Your task to perform on an android device: toggle sleep mode Image 0: 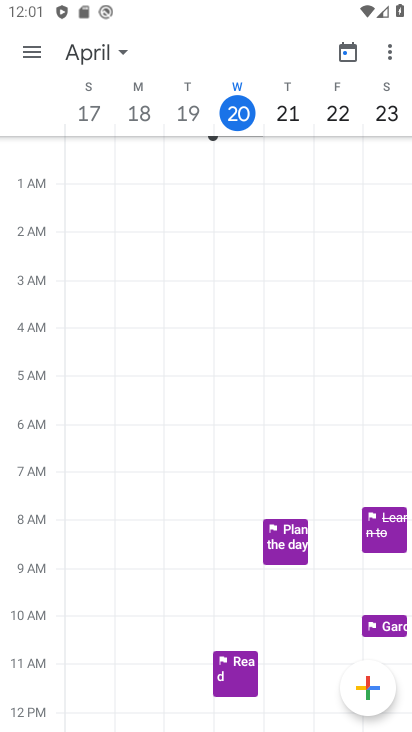
Step 0: press home button
Your task to perform on an android device: toggle sleep mode Image 1: 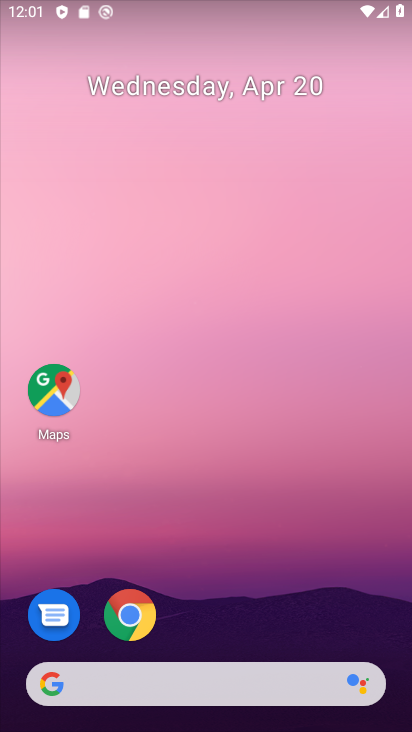
Step 1: click (338, 144)
Your task to perform on an android device: toggle sleep mode Image 2: 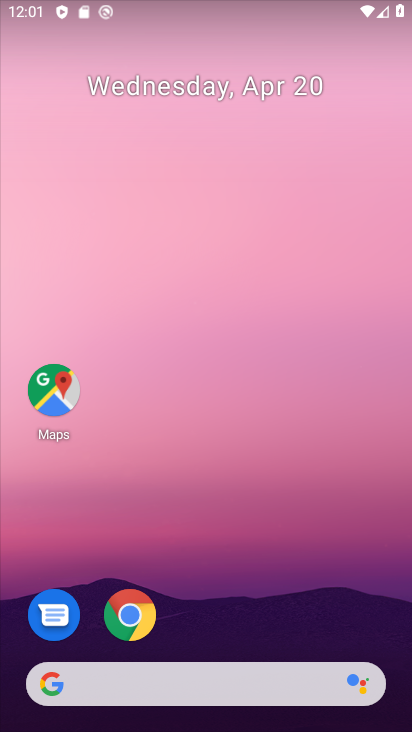
Step 2: drag from (362, 360) to (353, 263)
Your task to perform on an android device: toggle sleep mode Image 3: 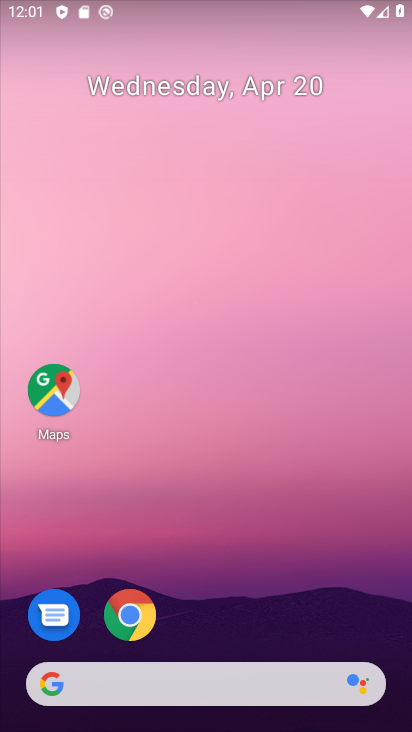
Step 3: drag from (378, 617) to (320, 217)
Your task to perform on an android device: toggle sleep mode Image 4: 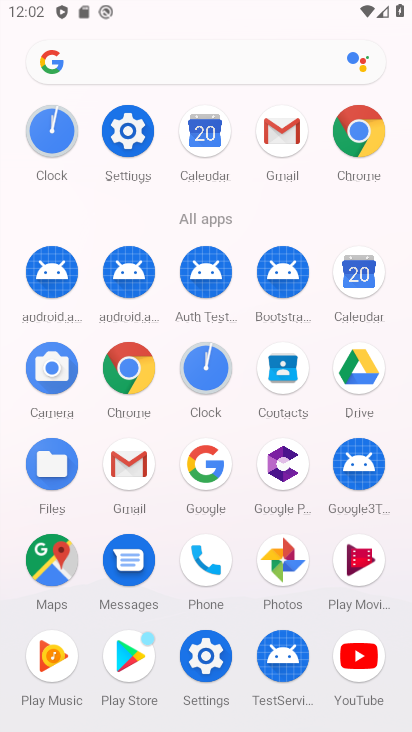
Step 4: click (196, 657)
Your task to perform on an android device: toggle sleep mode Image 5: 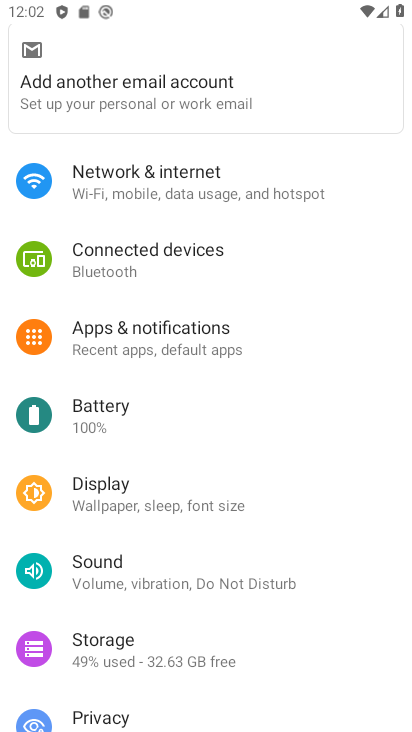
Step 5: drag from (333, 641) to (334, 279)
Your task to perform on an android device: toggle sleep mode Image 6: 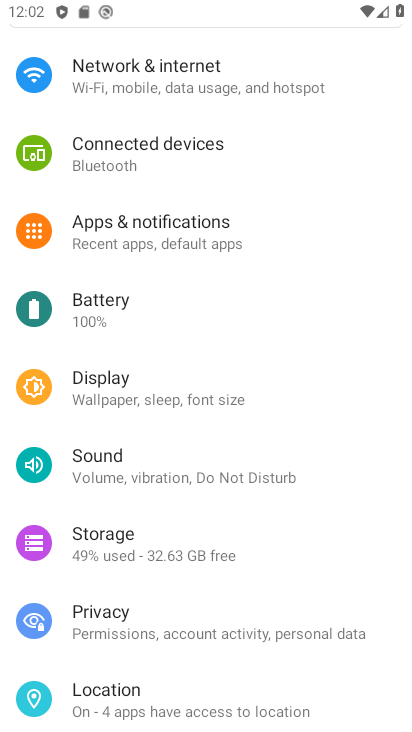
Step 6: drag from (373, 535) to (376, 349)
Your task to perform on an android device: toggle sleep mode Image 7: 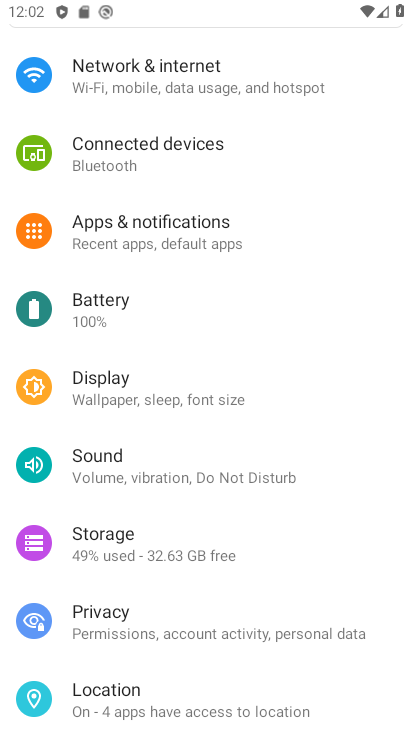
Step 7: click (93, 378)
Your task to perform on an android device: toggle sleep mode Image 8: 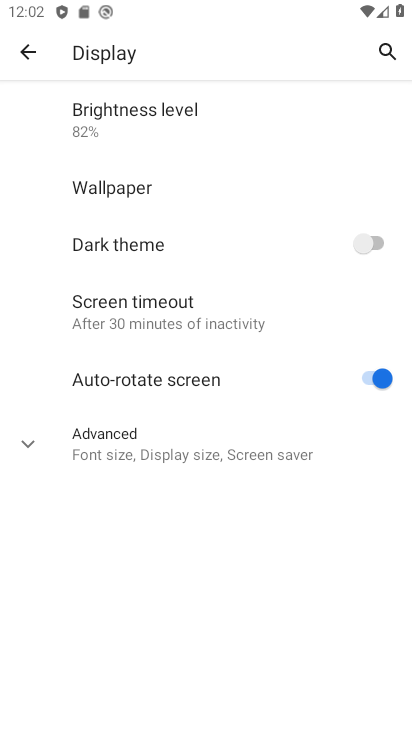
Step 8: click (134, 316)
Your task to perform on an android device: toggle sleep mode Image 9: 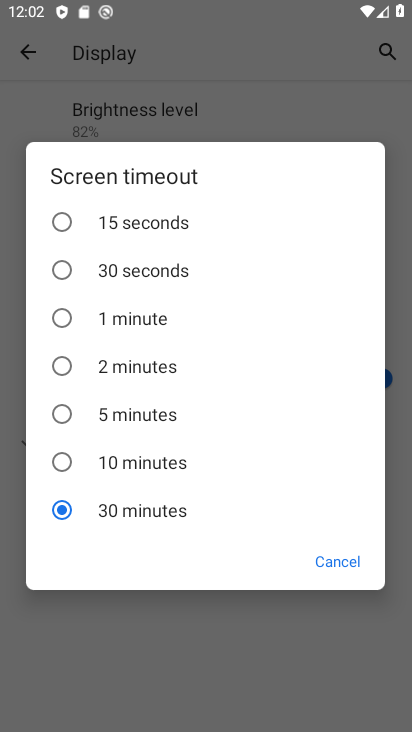
Step 9: click (68, 411)
Your task to perform on an android device: toggle sleep mode Image 10: 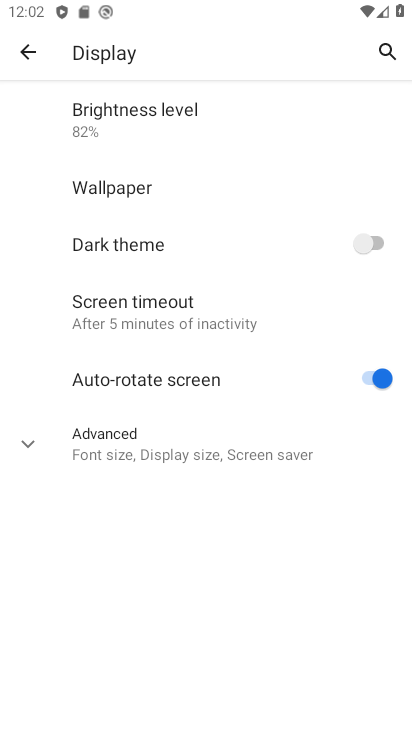
Step 10: task complete